Your task to perform on an android device: change keyboard looks Image 0: 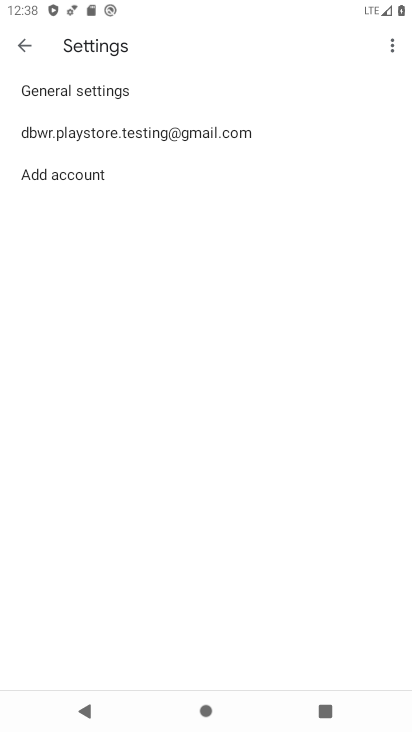
Step 0: click (250, 608)
Your task to perform on an android device: change keyboard looks Image 1: 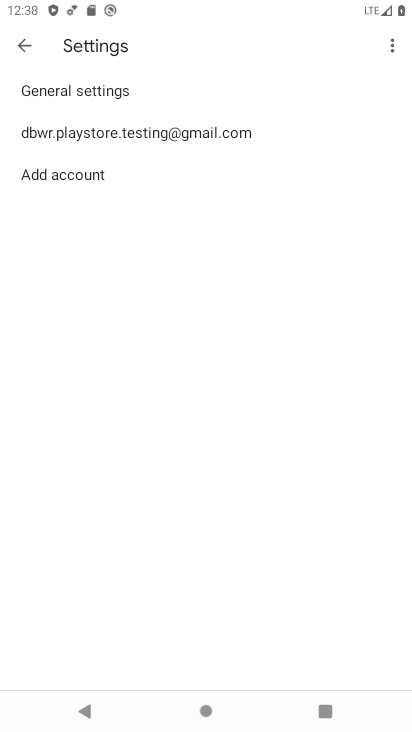
Step 1: press home button
Your task to perform on an android device: change keyboard looks Image 2: 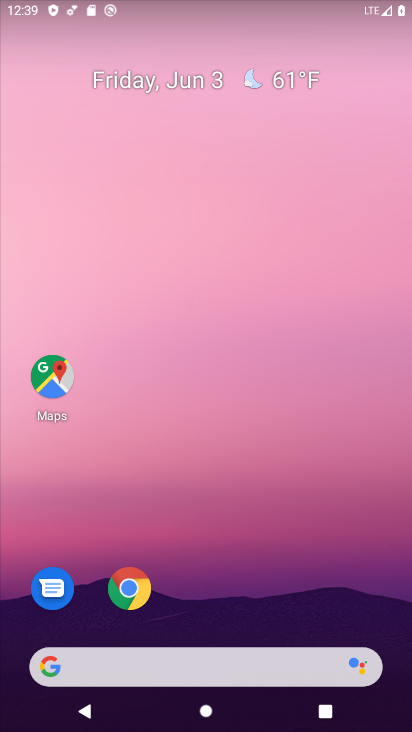
Step 2: drag from (271, 602) to (235, 130)
Your task to perform on an android device: change keyboard looks Image 3: 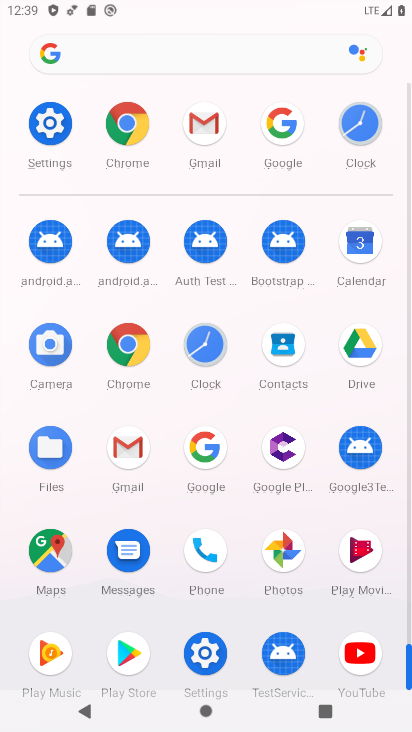
Step 3: click (222, 652)
Your task to perform on an android device: change keyboard looks Image 4: 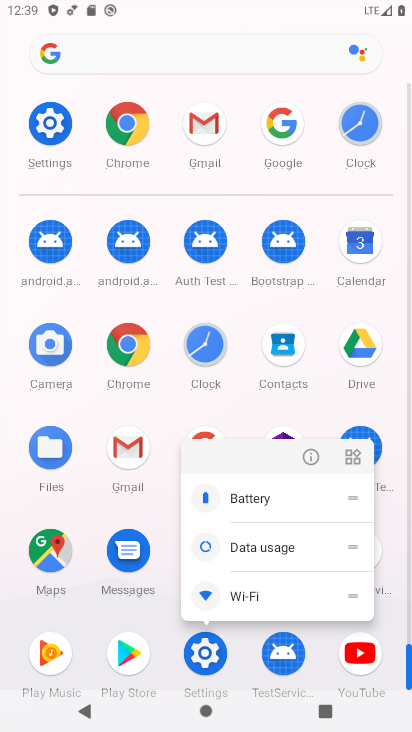
Step 4: click (212, 649)
Your task to perform on an android device: change keyboard looks Image 5: 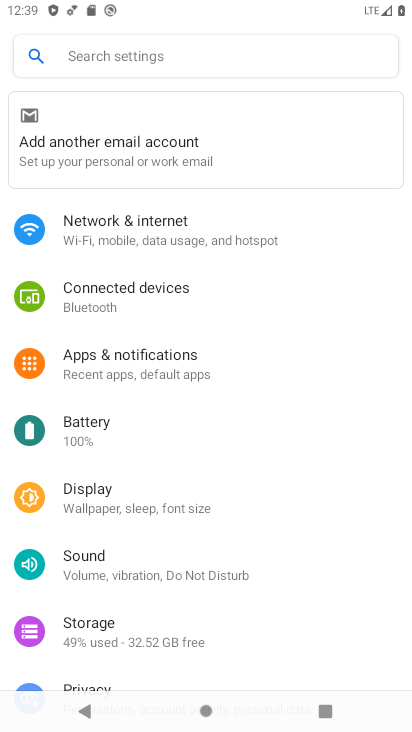
Step 5: task complete